Your task to perform on an android device: Open Reddit.com Image 0: 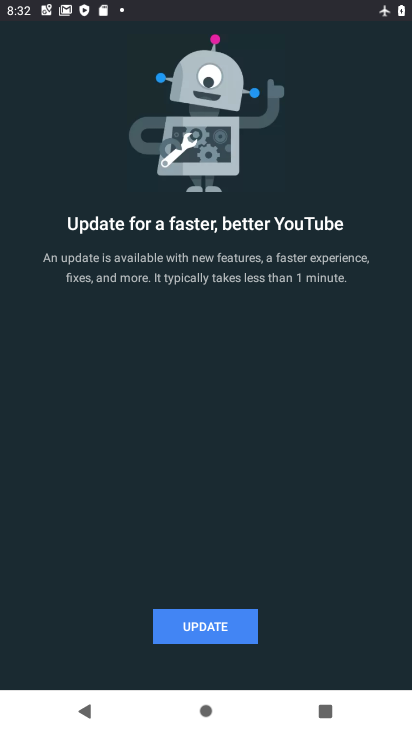
Step 0: press back button
Your task to perform on an android device: Open Reddit.com Image 1: 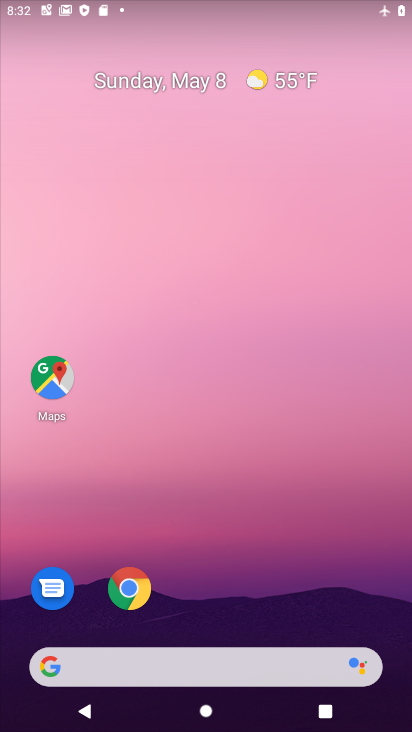
Step 1: drag from (344, 610) to (256, 30)
Your task to perform on an android device: Open Reddit.com Image 2: 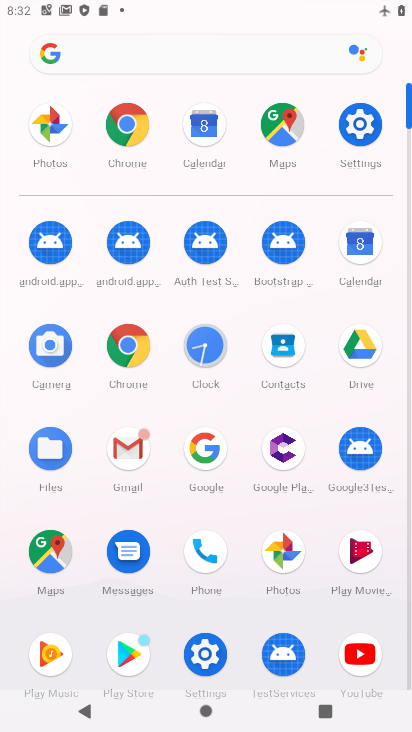
Step 2: click (128, 142)
Your task to perform on an android device: Open Reddit.com Image 3: 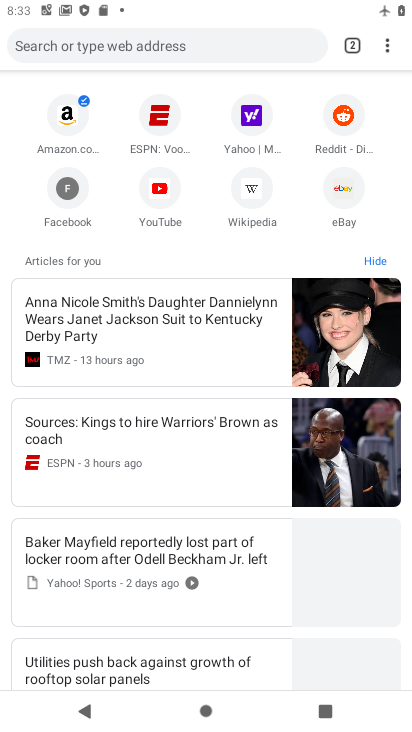
Step 3: click (153, 47)
Your task to perform on an android device: Open Reddit.com Image 4: 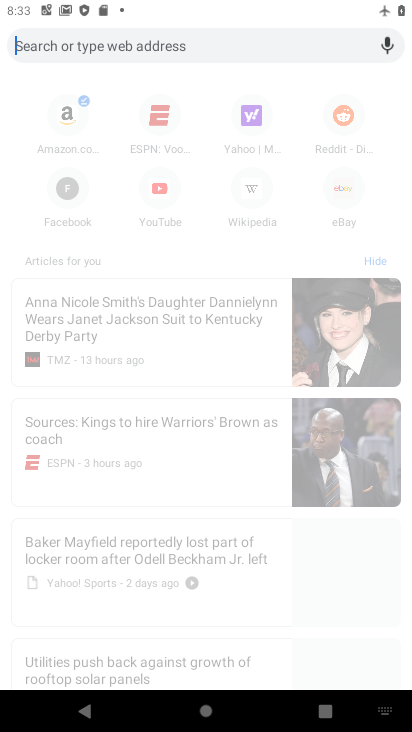
Step 4: type "reddit.com"
Your task to perform on an android device: Open Reddit.com Image 5: 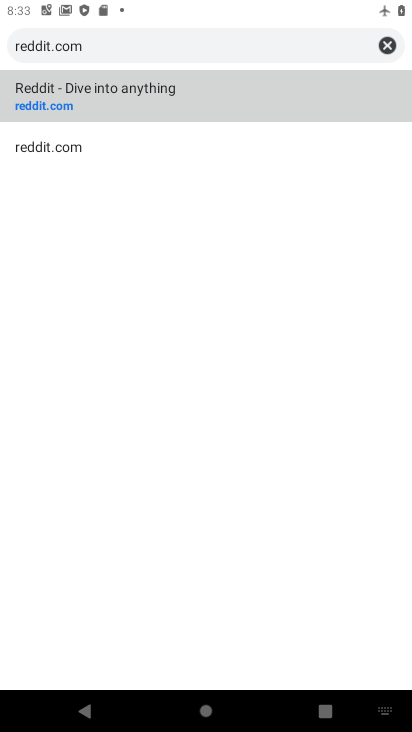
Step 5: click (80, 96)
Your task to perform on an android device: Open Reddit.com Image 6: 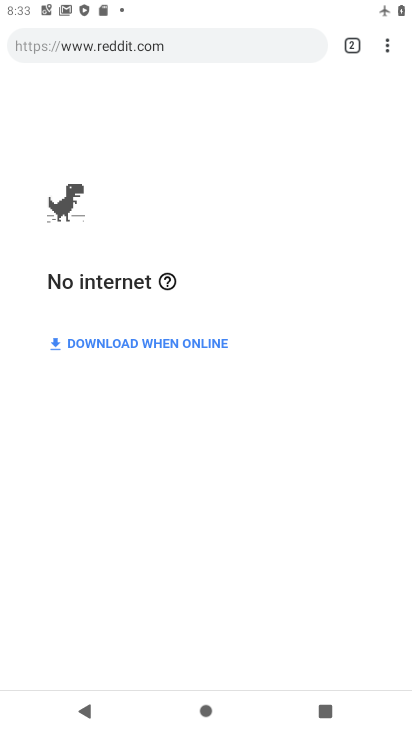
Step 6: task complete